Your task to perform on an android device: turn off translation in the chrome app Image 0: 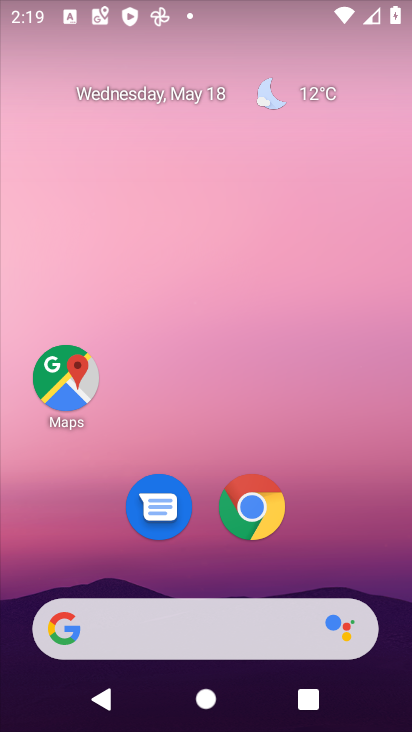
Step 0: click (251, 509)
Your task to perform on an android device: turn off translation in the chrome app Image 1: 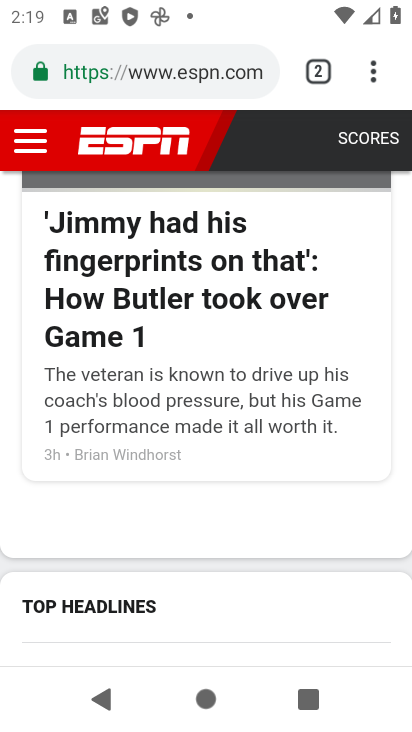
Step 1: click (369, 78)
Your task to perform on an android device: turn off translation in the chrome app Image 2: 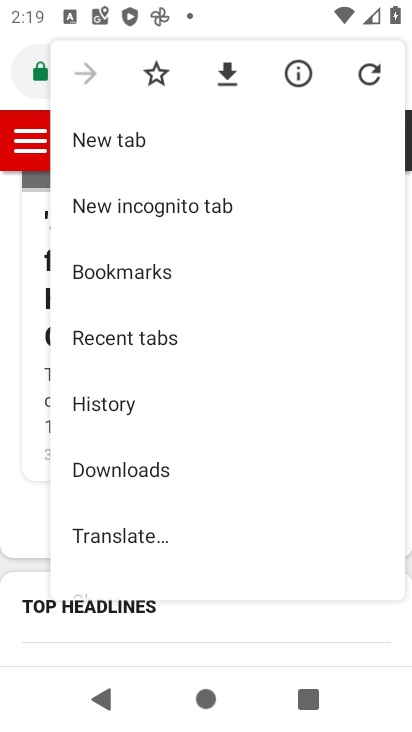
Step 2: drag from (217, 516) to (268, 225)
Your task to perform on an android device: turn off translation in the chrome app Image 3: 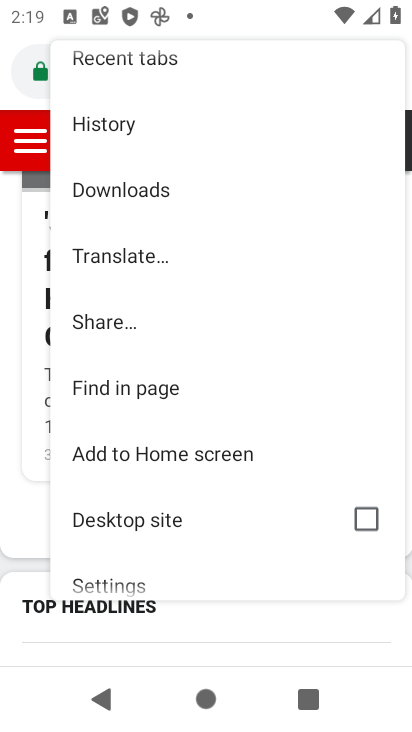
Step 3: drag from (270, 515) to (249, 187)
Your task to perform on an android device: turn off translation in the chrome app Image 4: 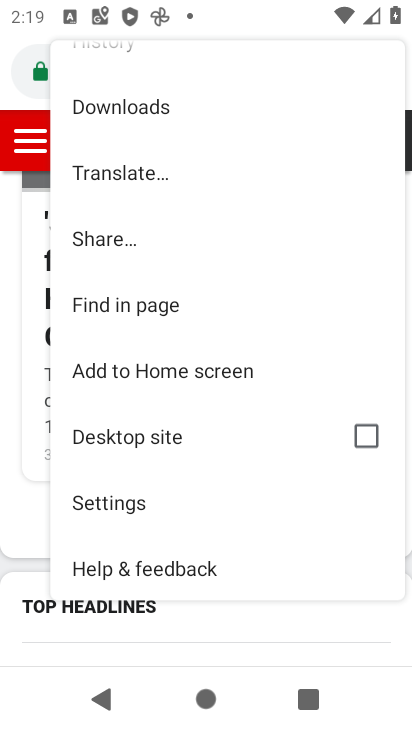
Step 4: click (126, 501)
Your task to perform on an android device: turn off translation in the chrome app Image 5: 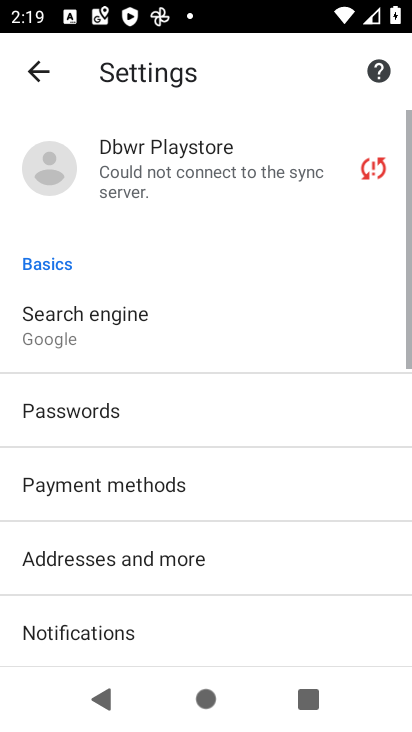
Step 5: drag from (258, 634) to (252, 208)
Your task to perform on an android device: turn off translation in the chrome app Image 6: 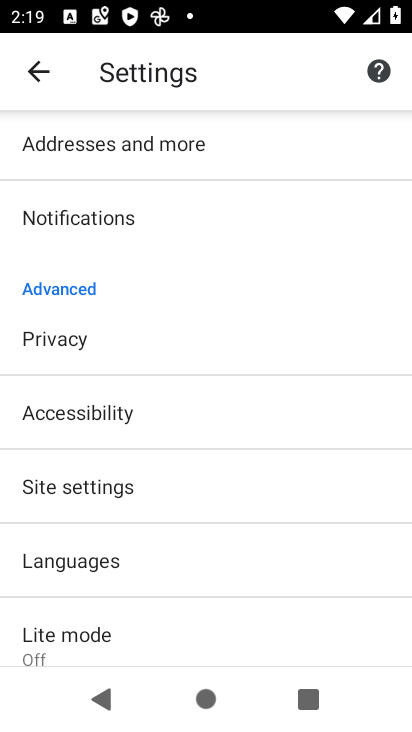
Step 6: click (92, 577)
Your task to perform on an android device: turn off translation in the chrome app Image 7: 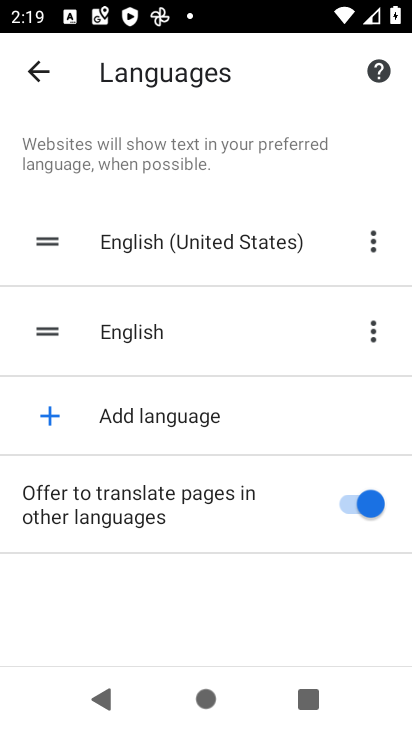
Step 7: click (346, 505)
Your task to perform on an android device: turn off translation in the chrome app Image 8: 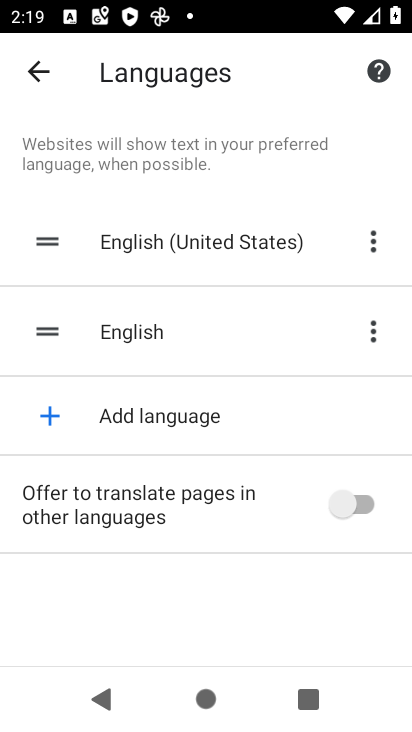
Step 8: task complete